Your task to perform on an android device: add a label to a message in the gmail app Image 0: 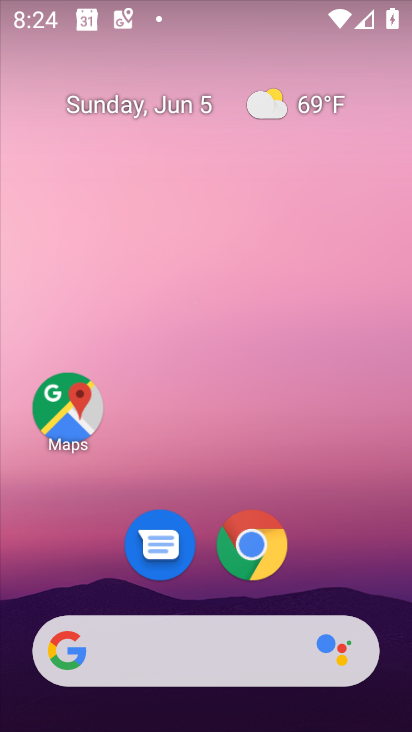
Step 0: drag from (349, 583) to (364, 224)
Your task to perform on an android device: add a label to a message in the gmail app Image 1: 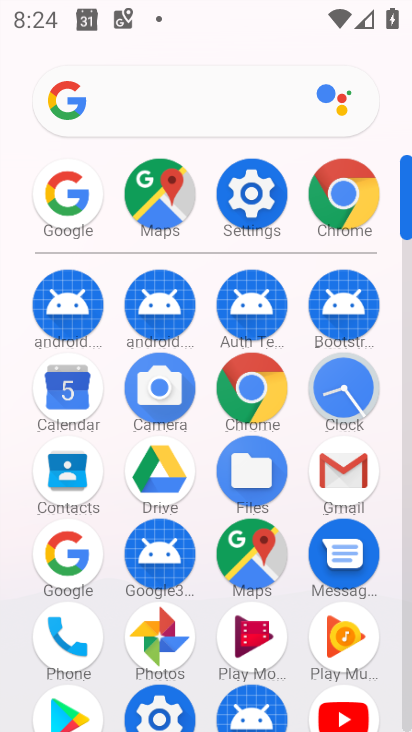
Step 1: click (356, 470)
Your task to perform on an android device: add a label to a message in the gmail app Image 2: 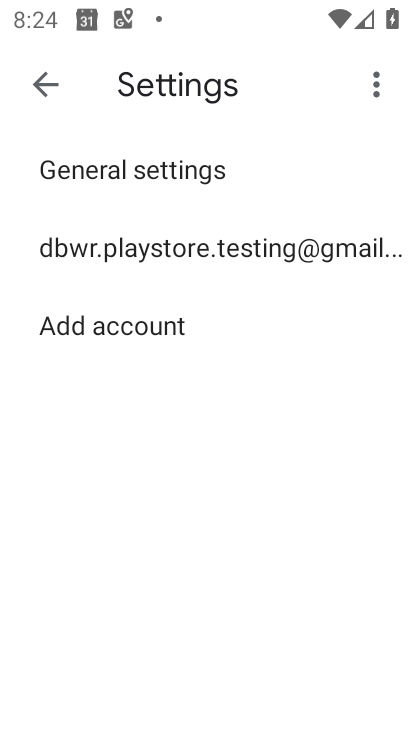
Step 2: press back button
Your task to perform on an android device: add a label to a message in the gmail app Image 3: 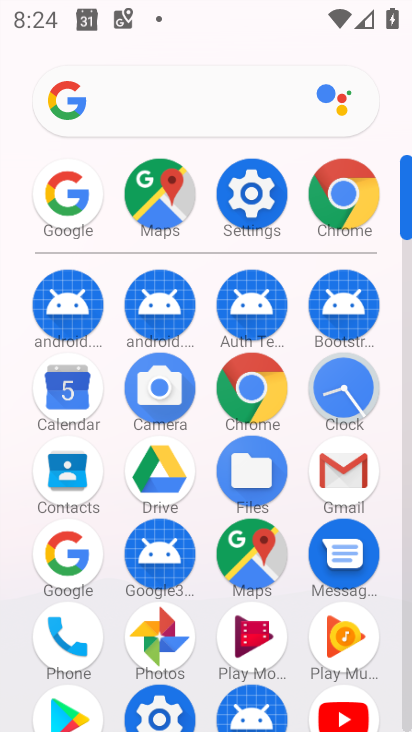
Step 3: click (359, 474)
Your task to perform on an android device: add a label to a message in the gmail app Image 4: 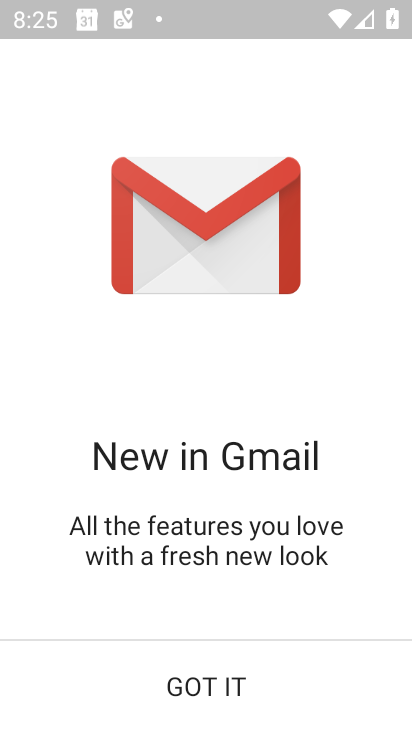
Step 4: click (225, 693)
Your task to perform on an android device: add a label to a message in the gmail app Image 5: 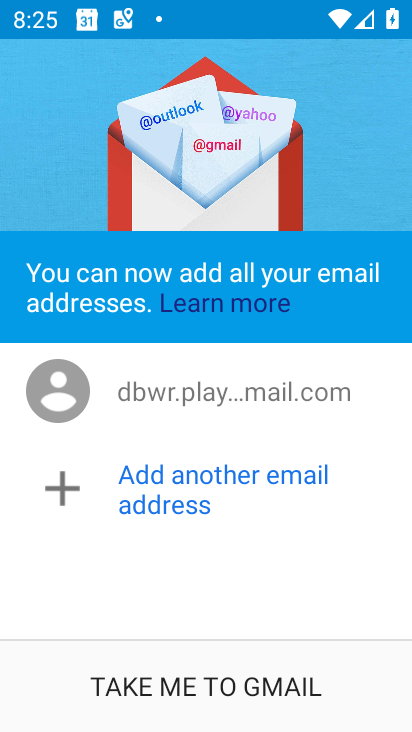
Step 5: click (225, 693)
Your task to perform on an android device: add a label to a message in the gmail app Image 6: 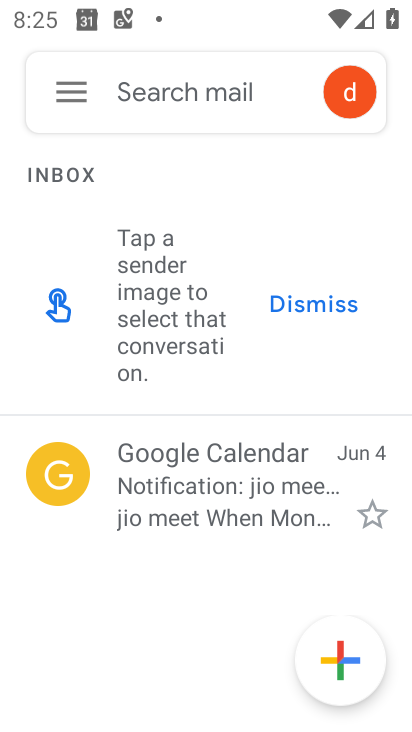
Step 6: click (210, 486)
Your task to perform on an android device: add a label to a message in the gmail app Image 7: 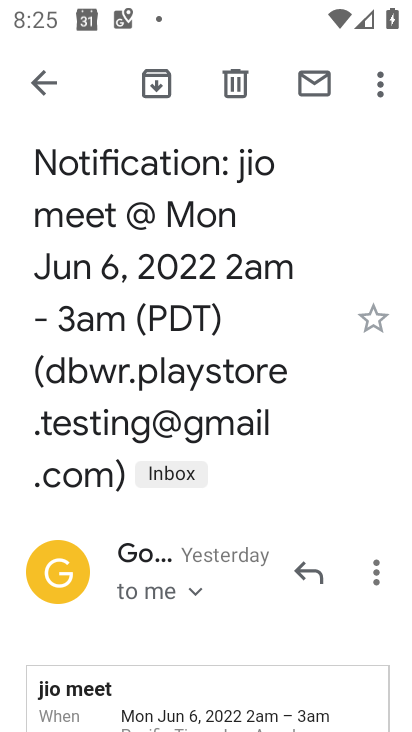
Step 7: click (186, 478)
Your task to perform on an android device: add a label to a message in the gmail app Image 8: 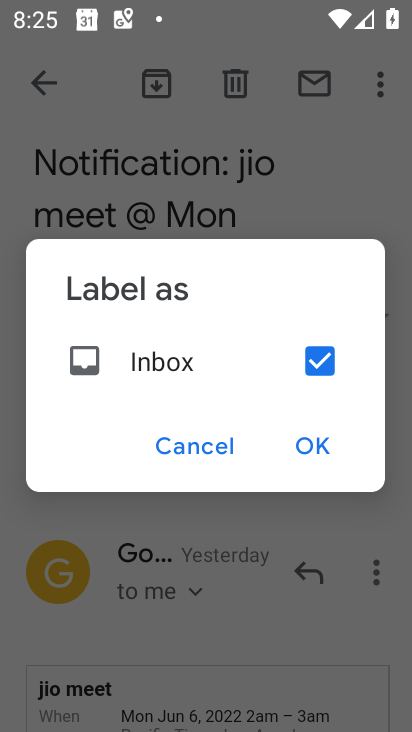
Step 8: click (309, 446)
Your task to perform on an android device: add a label to a message in the gmail app Image 9: 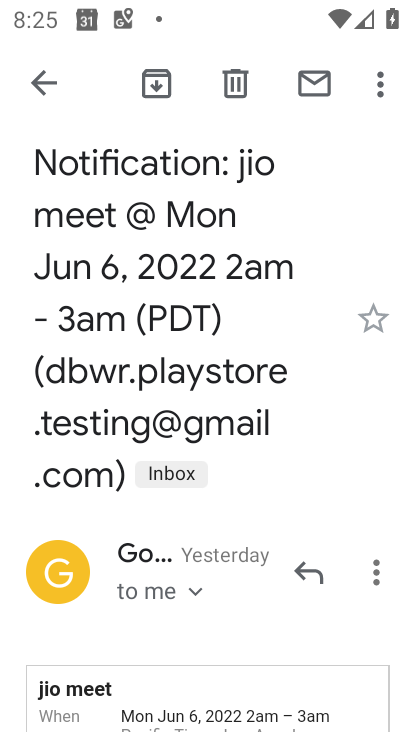
Step 9: click (186, 481)
Your task to perform on an android device: add a label to a message in the gmail app Image 10: 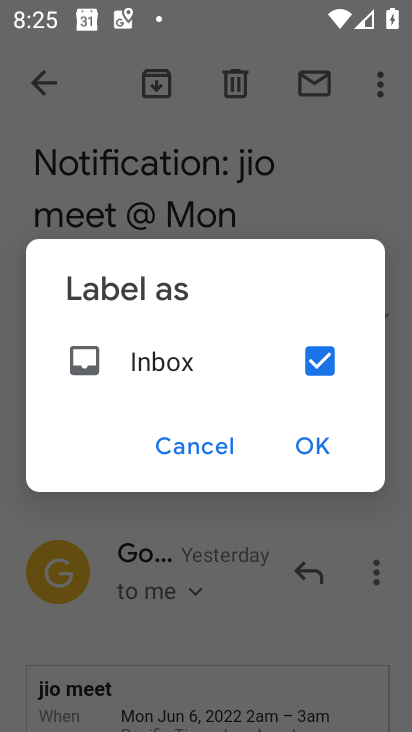
Step 10: click (318, 349)
Your task to perform on an android device: add a label to a message in the gmail app Image 11: 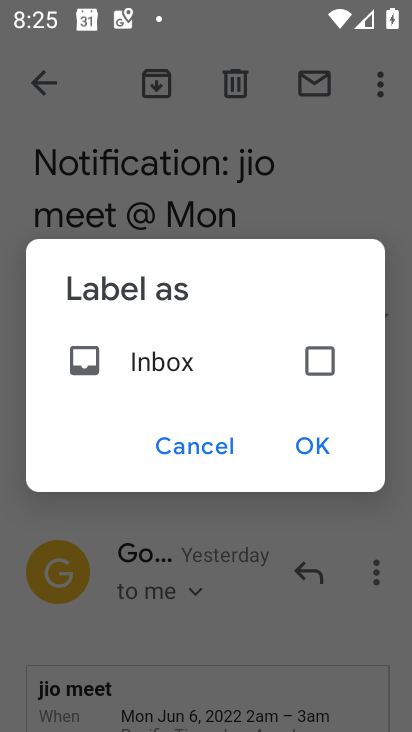
Step 11: click (309, 438)
Your task to perform on an android device: add a label to a message in the gmail app Image 12: 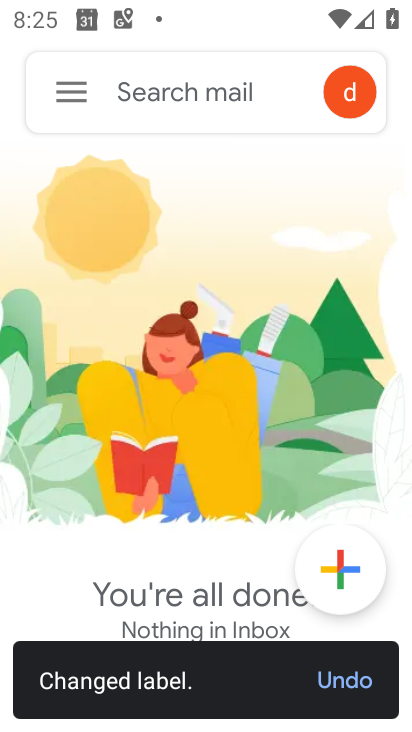
Step 12: task complete